Your task to perform on an android device: turn on showing notifications on the lock screen Image 0: 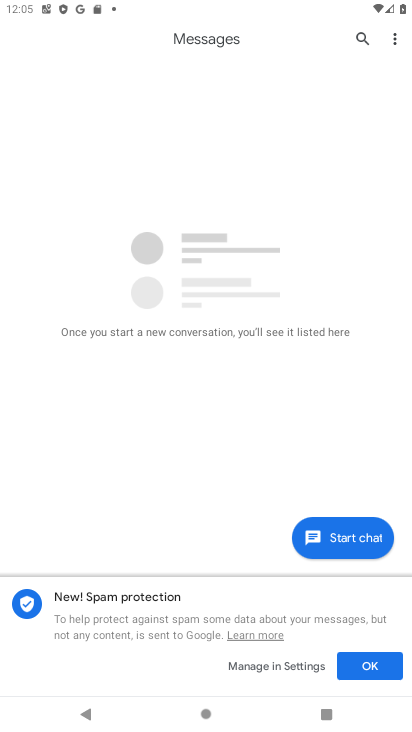
Step 0: press home button
Your task to perform on an android device: turn on showing notifications on the lock screen Image 1: 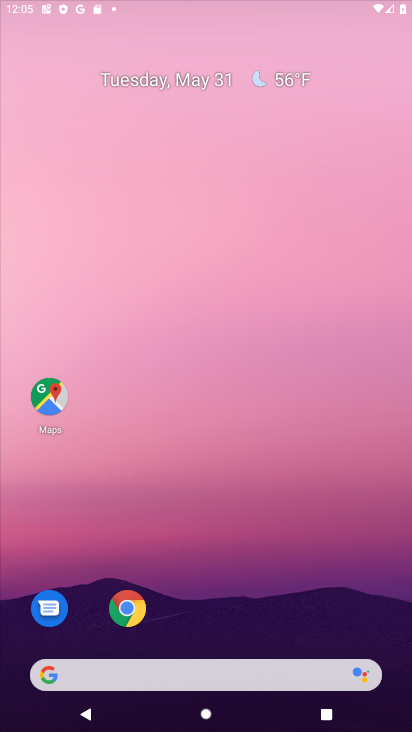
Step 1: drag from (213, 604) to (261, 115)
Your task to perform on an android device: turn on showing notifications on the lock screen Image 2: 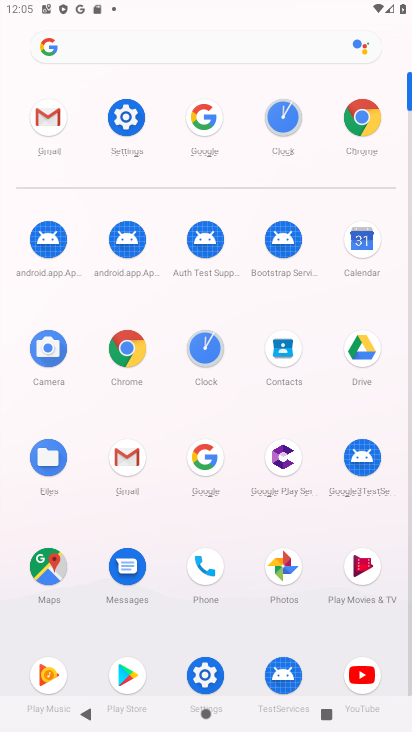
Step 2: click (120, 120)
Your task to perform on an android device: turn on showing notifications on the lock screen Image 3: 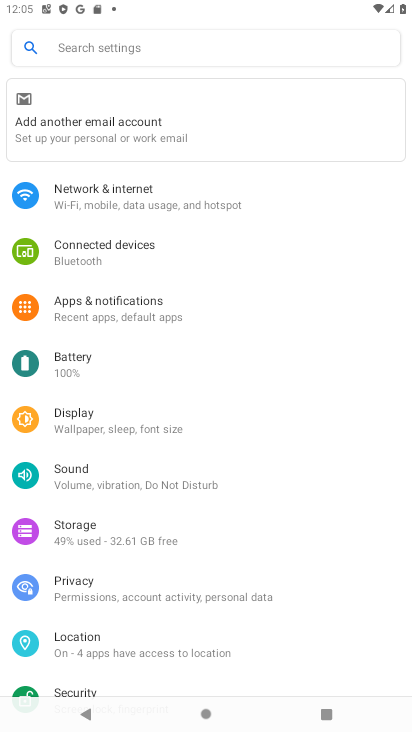
Step 3: click (97, 313)
Your task to perform on an android device: turn on showing notifications on the lock screen Image 4: 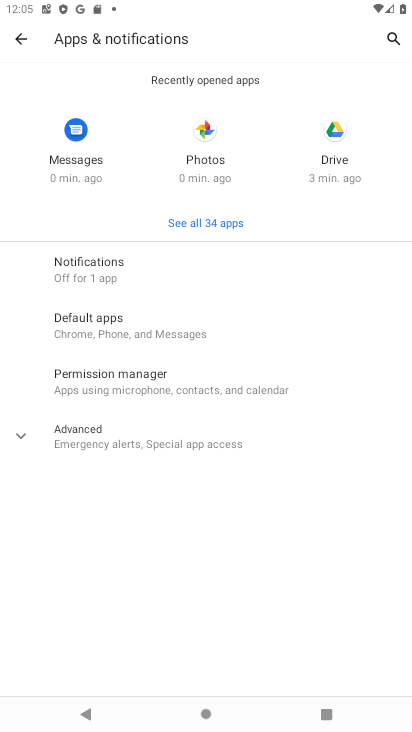
Step 4: click (94, 255)
Your task to perform on an android device: turn on showing notifications on the lock screen Image 5: 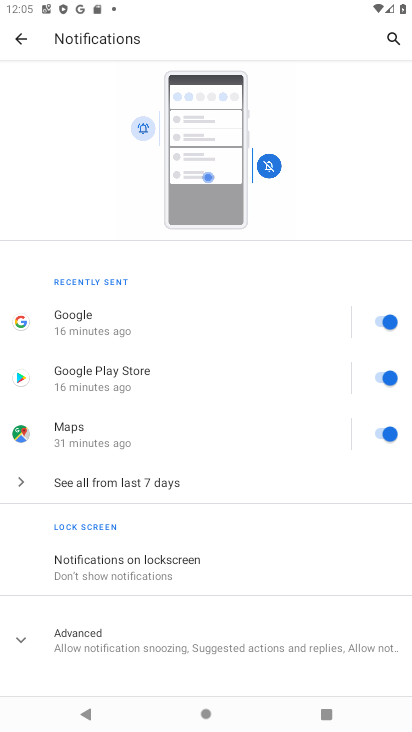
Step 5: click (150, 570)
Your task to perform on an android device: turn on showing notifications on the lock screen Image 6: 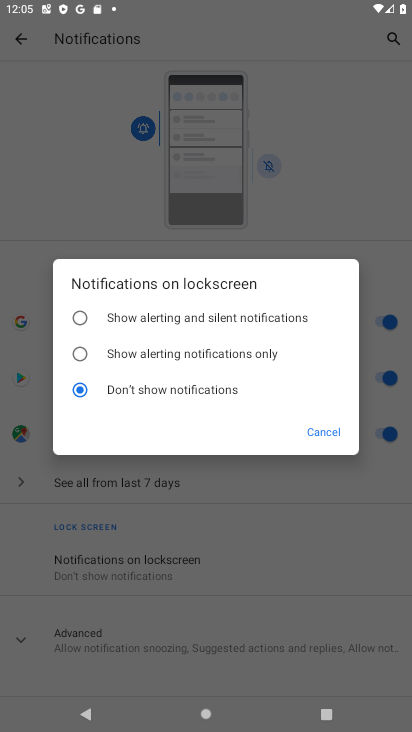
Step 6: click (81, 315)
Your task to perform on an android device: turn on showing notifications on the lock screen Image 7: 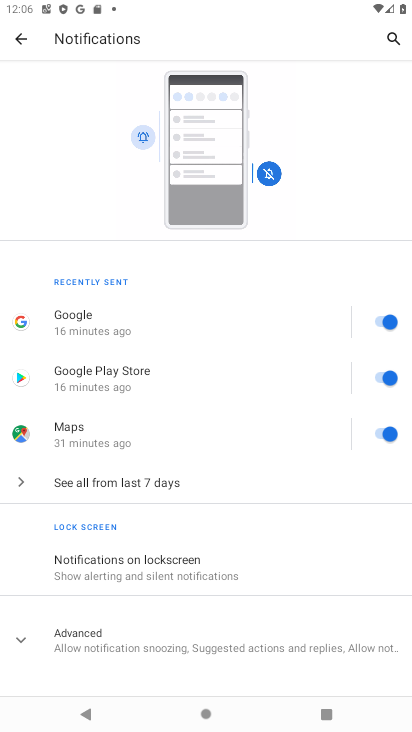
Step 7: task complete